Your task to perform on an android device: manage bookmarks in the chrome app Image 0: 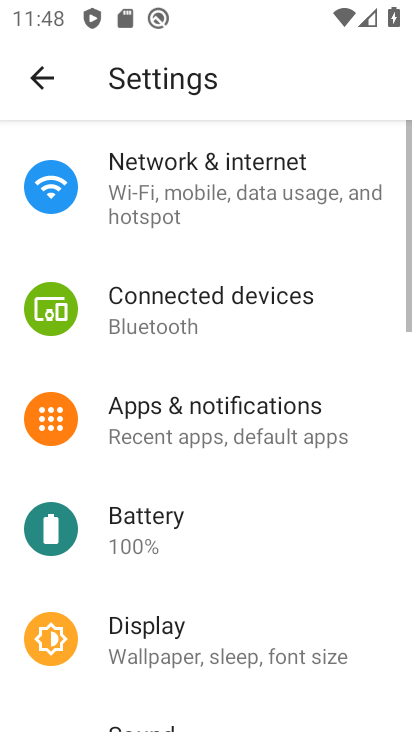
Step 0: press home button
Your task to perform on an android device: manage bookmarks in the chrome app Image 1: 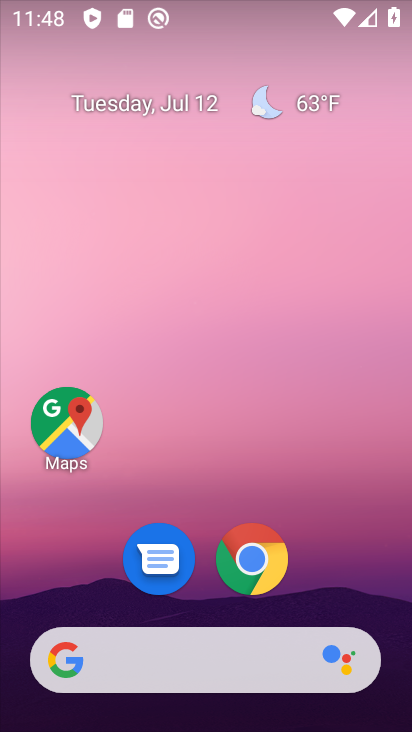
Step 1: drag from (319, 572) to (320, 44)
Your task to perform on an android device: manage bookmarks in the chrome app Image 2: 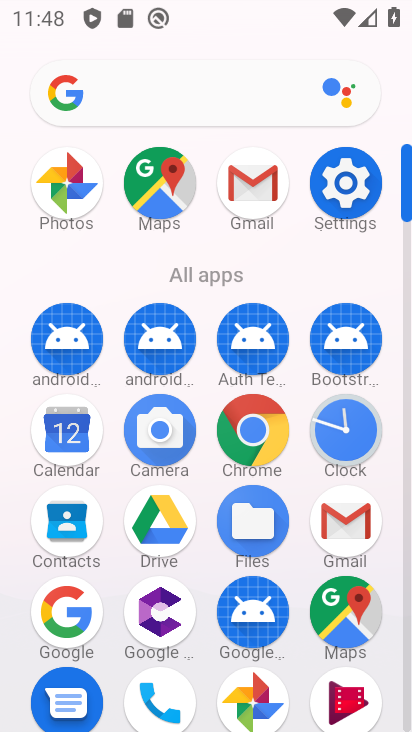
Step 2: drag from (384, 560) to (383, 272)
Your task to perform on an android device: manage bookmarks in the chrome app Image 3: 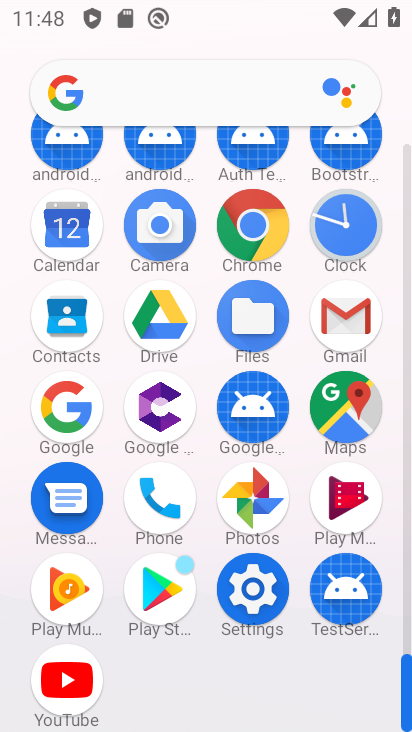
Step 3: drag from (387, 193) to (384, 372)
Your task to perform on an android device: manage bookmarks in the chrome app Image 4: 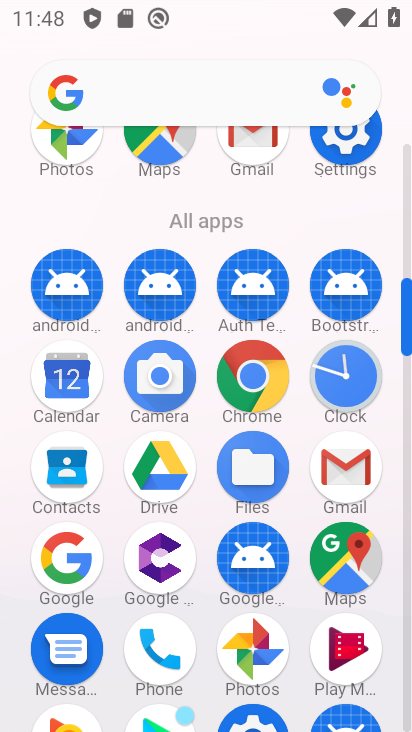
Step 4: drag from (372, 191) to (386, 347)
Your task to perform on an android device: manage bookmarks in the chrome app Image 5: 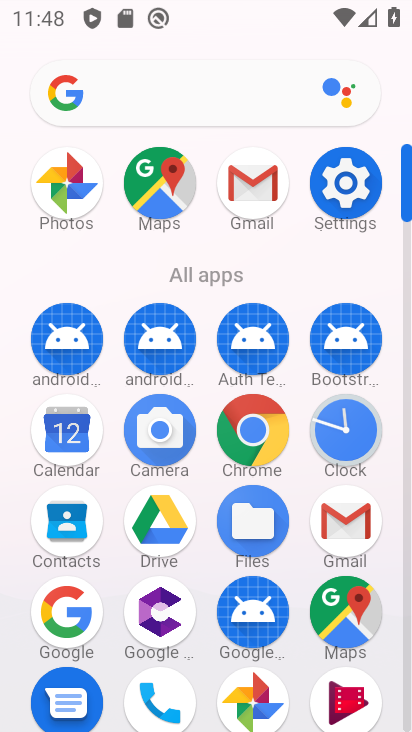
Step 5: click (252, 428)
Your task to perform on an android device: manage bookmarks in the chrome app Image 6: 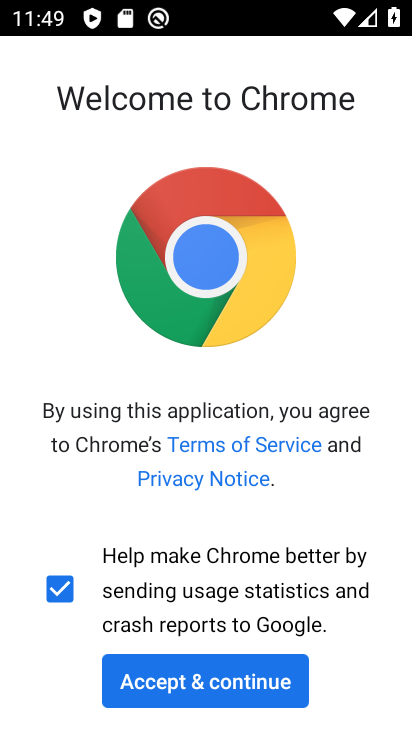
Step 6: click (233, 694)
Your task to perform on an android device: manage bookmarks in the chrome app Image 7: 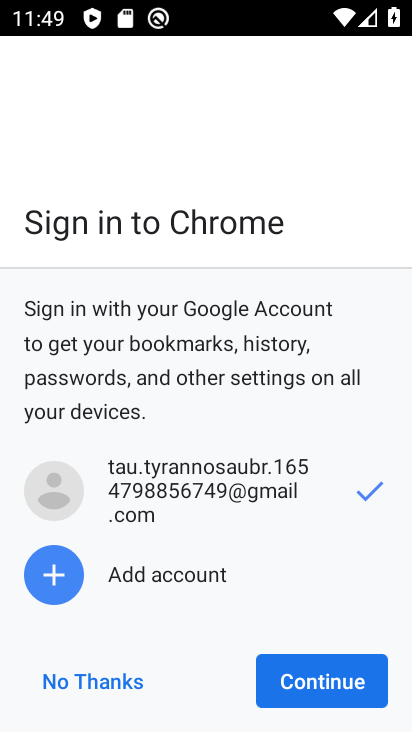
Step 7: click (326, 682)
Your task to perform on an android device: manage bookmarks in the chrome app Image 8: 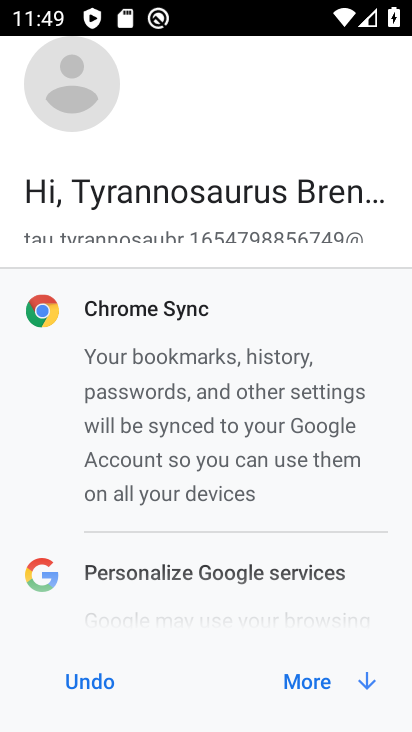
Step 8: click (334, 679)
Your task to perform on an android device: manage bookmarks in the chrome app Image 9: 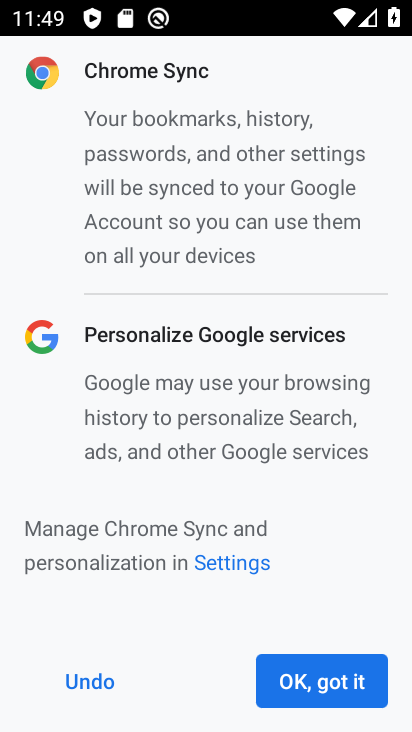
Step 9: click (339, 691)
Your task to perform on an android device: manage bookmarks in the chrome app Image 10: 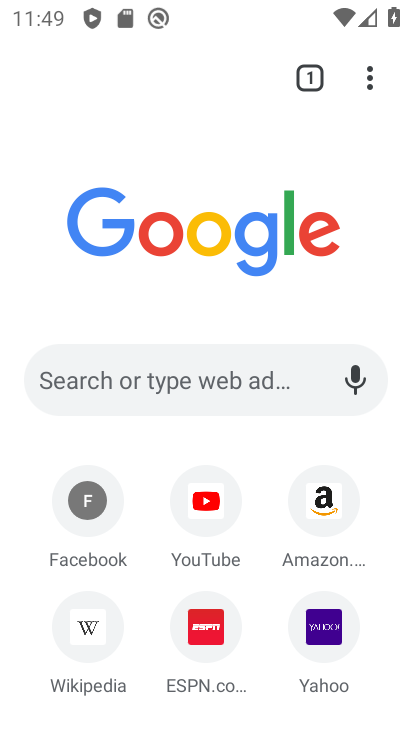
Step 10: click (367, 87)
Your task to perform on an android device: manage bookmarks in the chrome app Image 11: 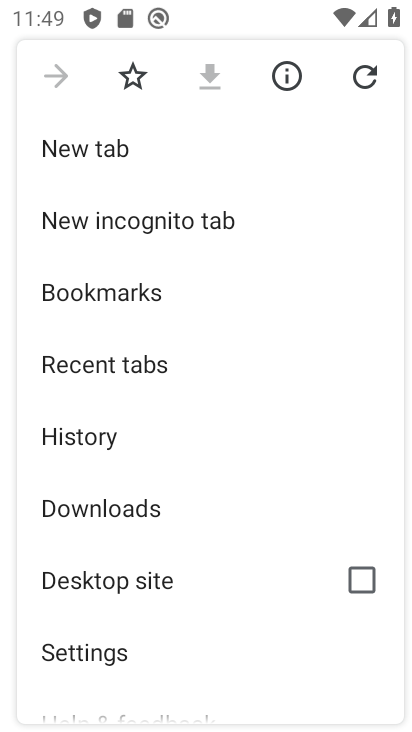
Step 11: drag from (311, 355) to (304, 216)
Your task to perform on an android device: manage bookmarks in the chrome app Image 12: 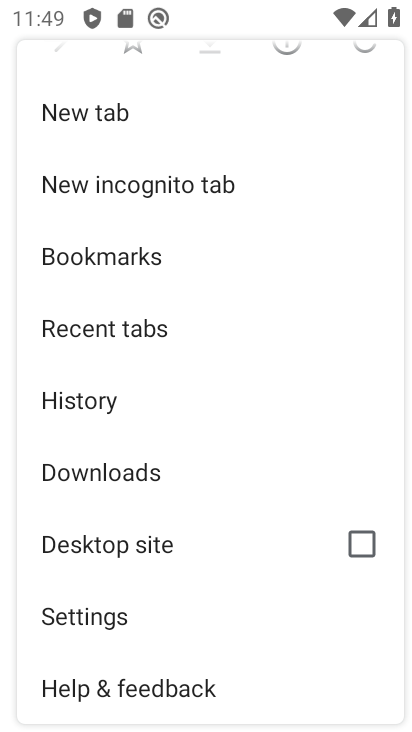
Step 12: drag from (300, 412) to (288, 269)
Your task to perform on an android device: manage bookmarks in the chrome app Image 13: 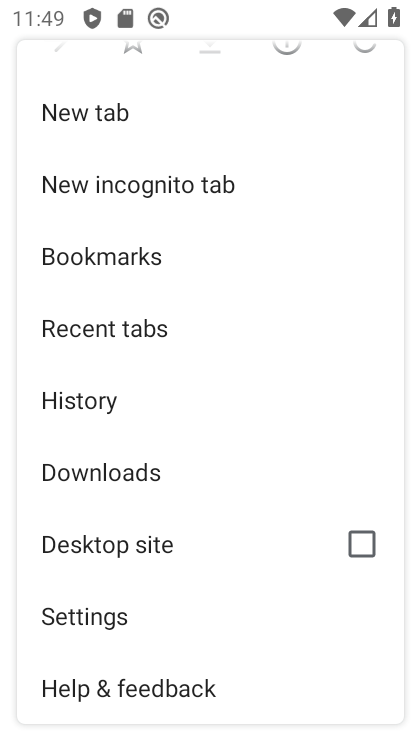
Step 13: drag from (287, 212) to (240, 429)
Your task to perform on an android device: manage bookmarks in the chrome app Image 14: 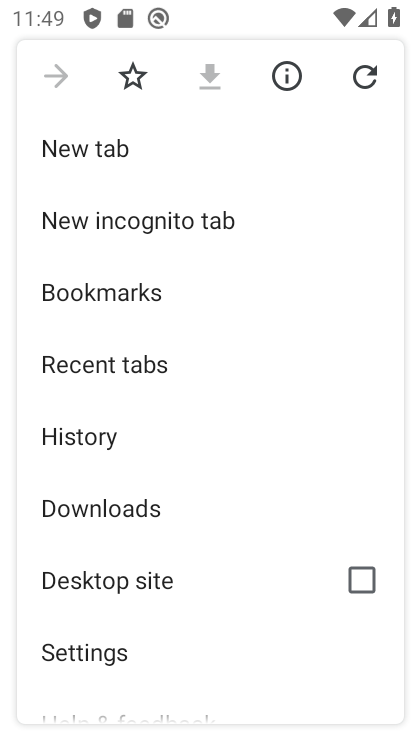
Step 14: click (158, 293)
Your task to perform on an android device: manage bookmarks in the chrome app Image 15: 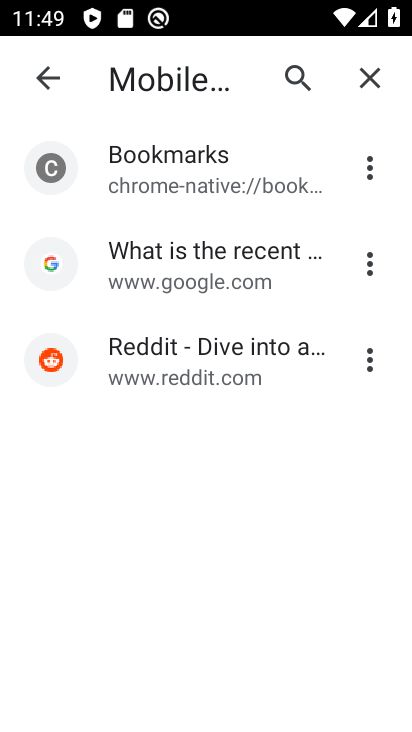
Step 15: click (365, 264)
Your task to perform on an android device: manage bookmarks in the chrome app Image 16: 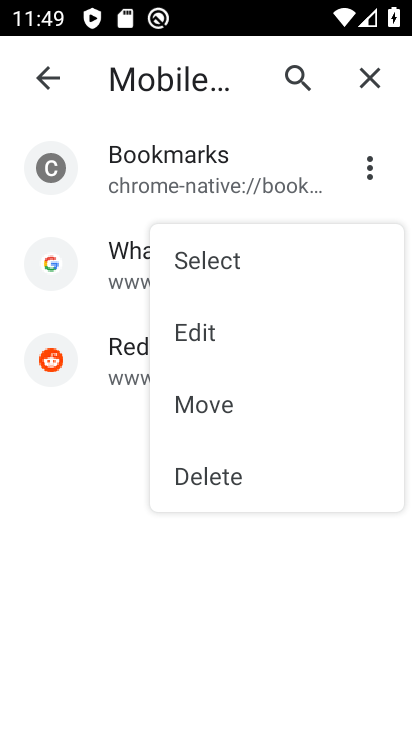
Step 16: click (228, 342)
Your task to perform on an android device: manage bookmarks in the chrome app Image 17: 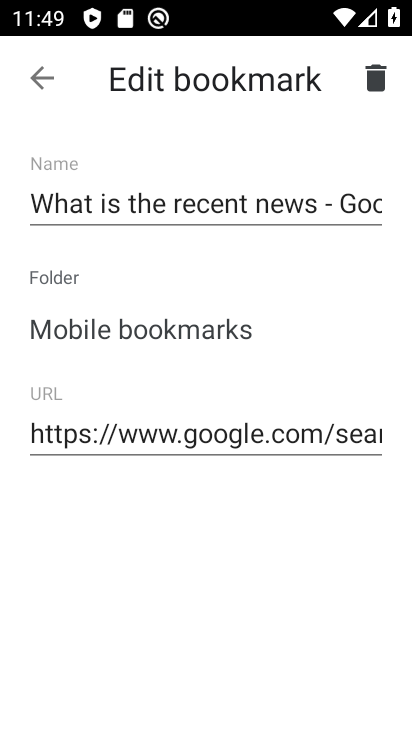
Step 17: click (314, 199)
Your task to perform on an android device: manage bookmarks in the chrome app Image 18: 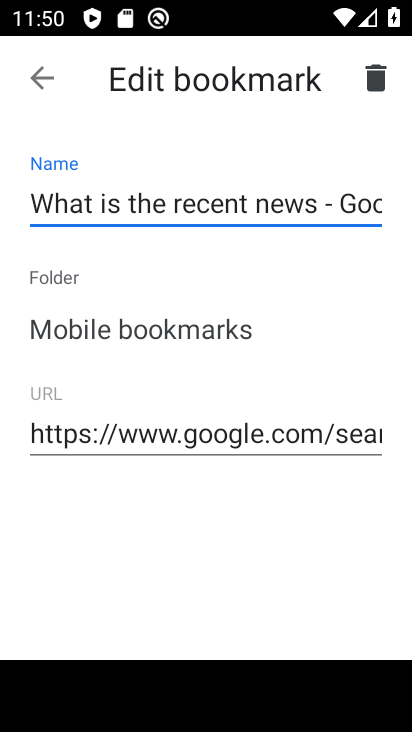
Step 18: type "s"
Your task to perform on an android device: manage bookmarks in the chrome app Image 19: 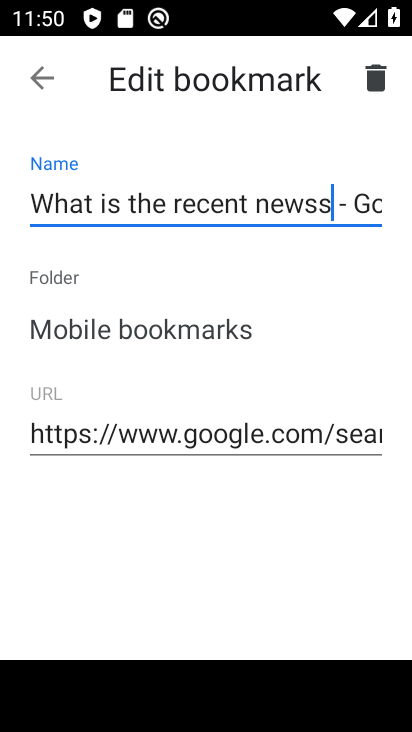
Step 19: click (48, 74)
Your task to perform on an android device: manage bookmarks in the chrome app Image 20: 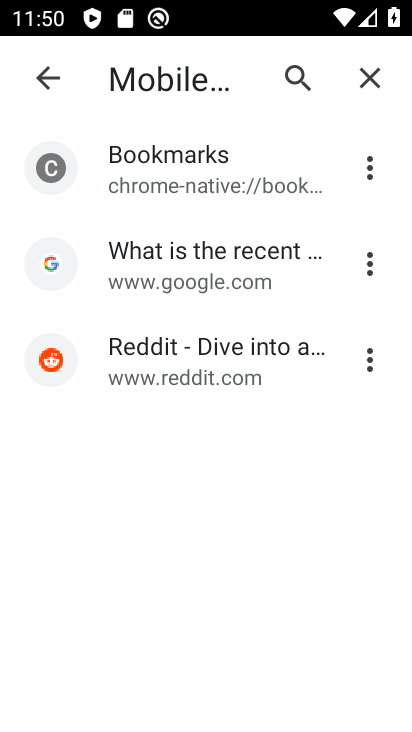
Step 20: task complete